Your task to perform on an android device: Open the calendar app, open the side menu, and click the "Day" option Image 0: 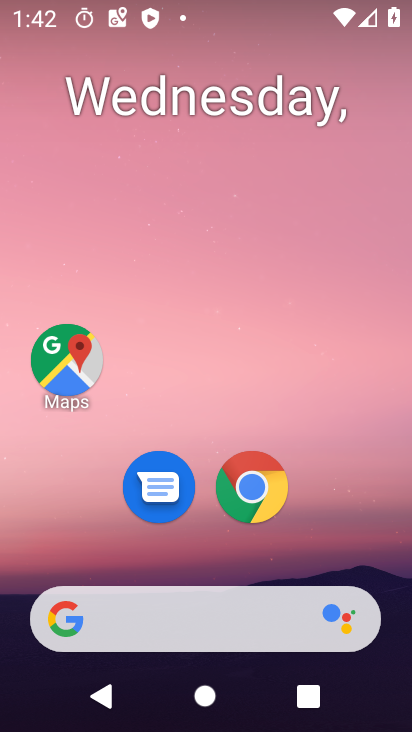
Step 0: drag from (103, 569) to (190, 45)
Your task to perform on an android device: Open the calendar app, open the side menu, and click the "Day" option Image 1: 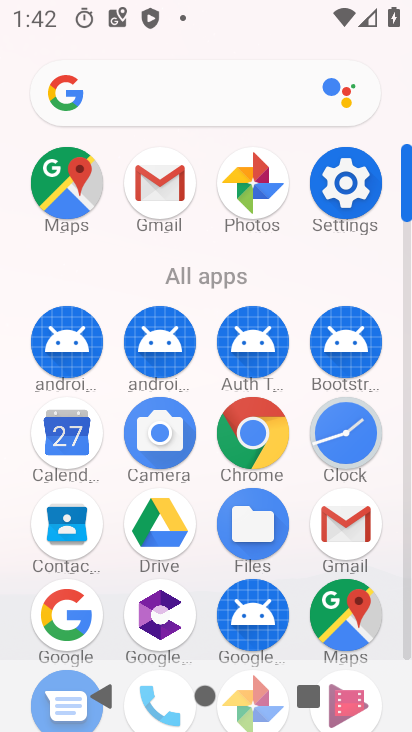
Step 1: click (72, 452)
Your task to perform on an android device: Open the calendar app, open the side menu, and click the "Day" option Image 2: 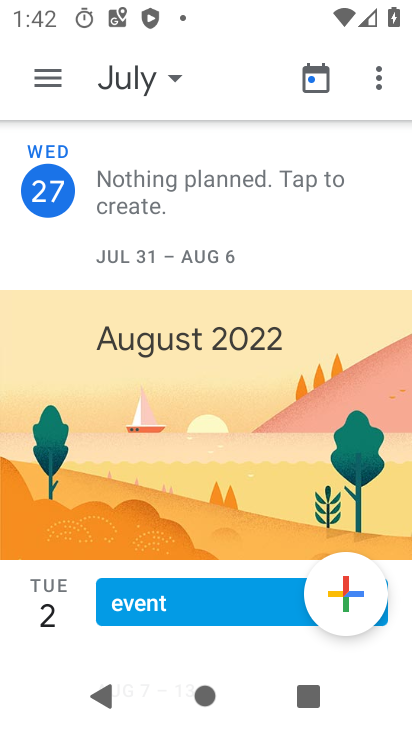
Step 2: click (51, 82)
Your task to perform on an android device: Open the calendar app, open the side menu, and click the "Day" option Image 3: 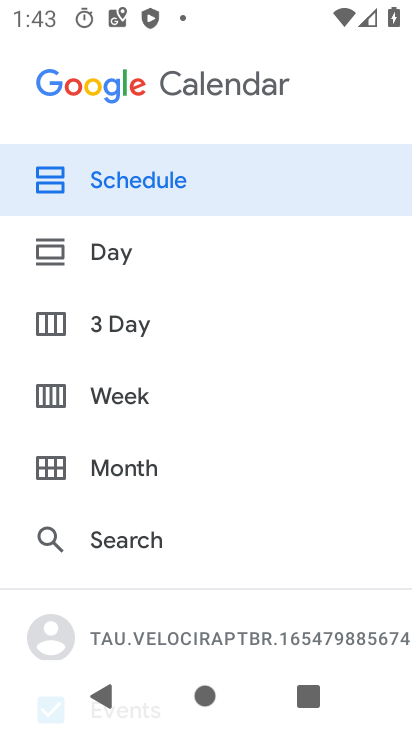
Step 3: click (111, 252)
Your task to perform on an android device: Open the calendar app, open the side menu, and click the "Day" option Image 4: 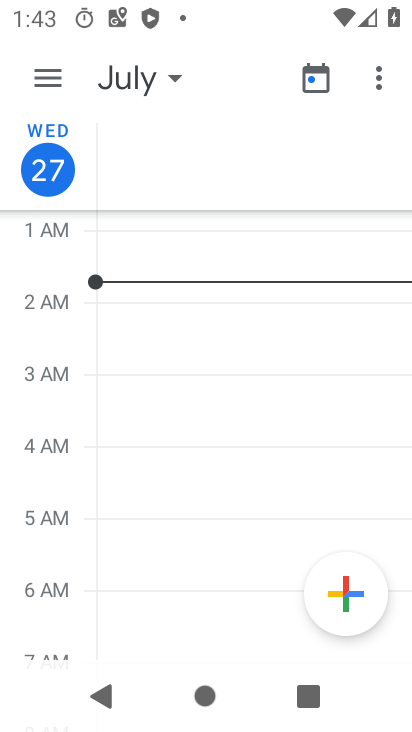
Step 4: task complete